Your task to perform on an android device: open chrome and create a bookmark for the current page Image 0: 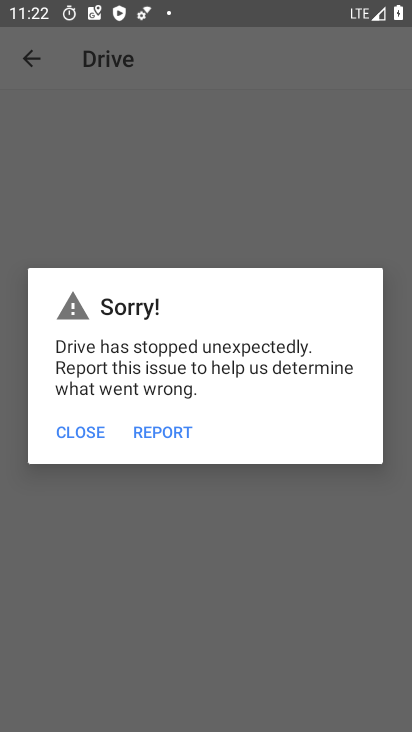
Step 0: press home button
Your task to perform on an android device: open chrome and create a bookmark for the current page Image 1: 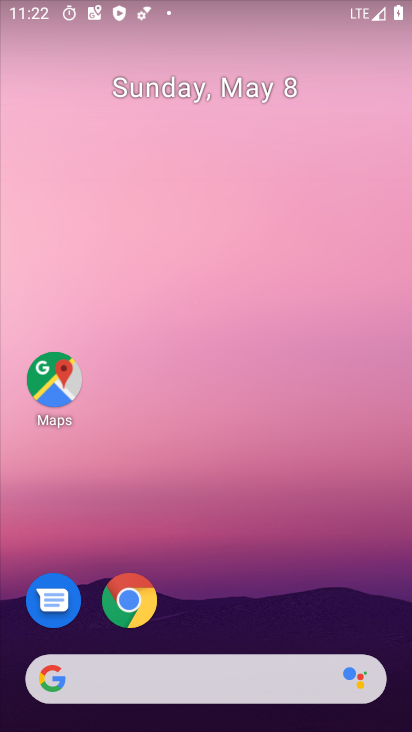
Step 1: click (124, 591)
Your task to perform on an android device: open chrome and create a bookmark for the current page Image 2: 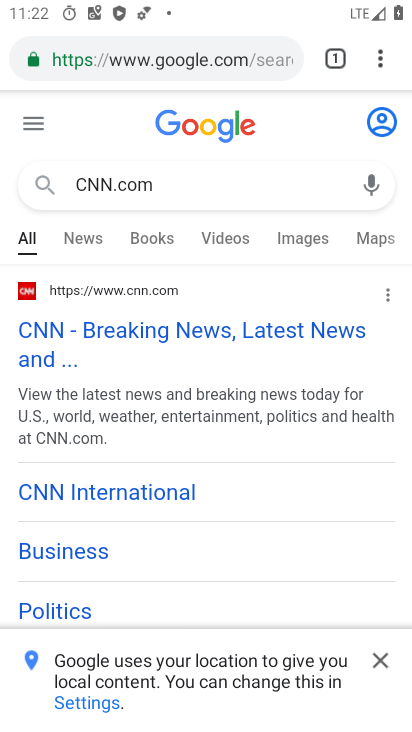
Step 2: click (379, 61)
Your task to perform on an android device: open chrome and create a bookmark for the current page Image 3: 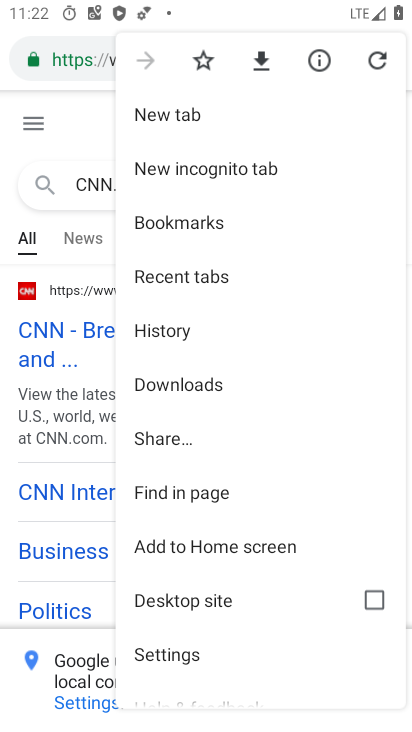
Step 3: click (200, 56)
Your task to perform on an android device: open chrome and create a bookmark for the current page Image 4: 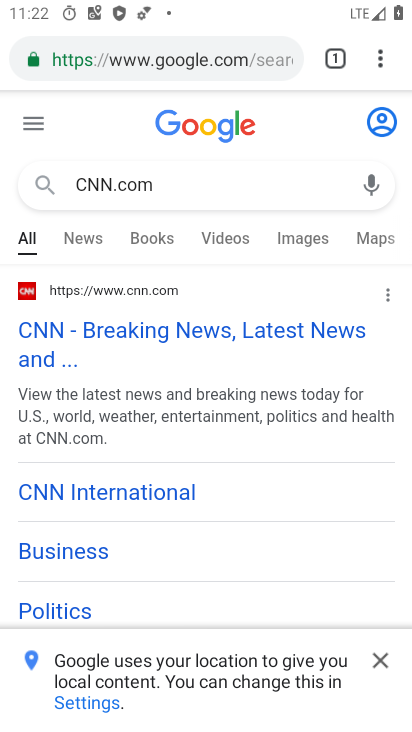
Step 4: click (384, 54)
Your task to perform on an android device: open chrome and create a bookmark for the current page Image 5: 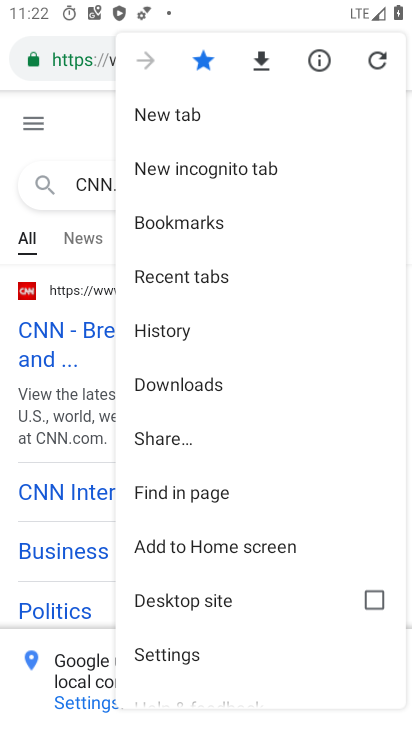
Step 5: task complete